Your task to perform on an android device: turn off picture-in-picture Image 0: 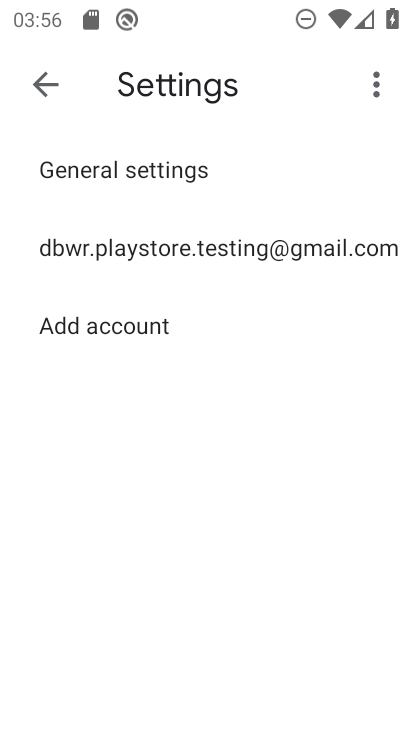
Step 0: press home button
Your task to perform on an android device: turn off picture-in-picture Image 1: 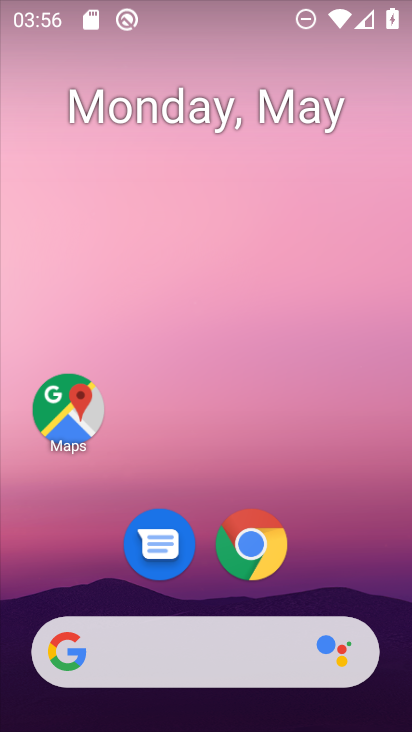
Step 1: drag from (387, 576) to (371, 197)
Your task to perform on an android device: turn off picture-in-picture Image 2: 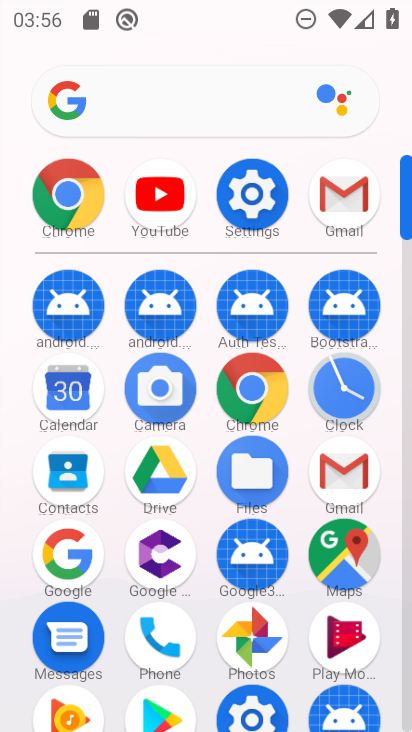
Step 2: click (262, 224)
Your task to perform on an android device: turn off picture-in-picture Image 3: 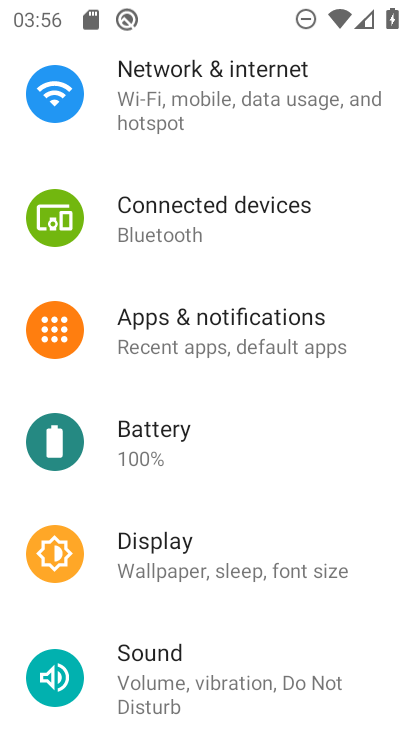
Step 3: drag from (364, 212) to (357, 312)
Your task to perform on an android device: turn off picture-in-picture Image 4: 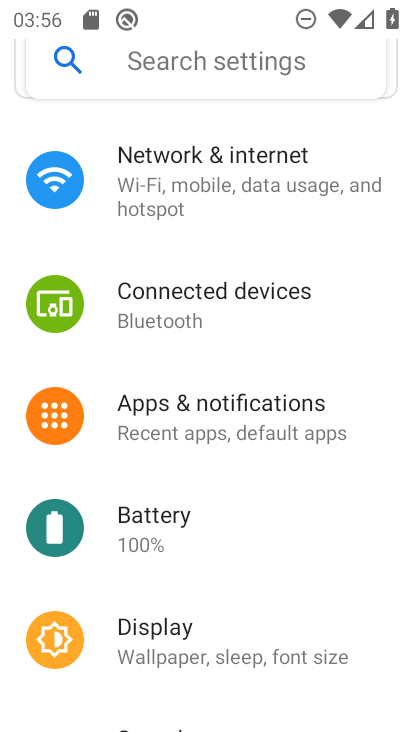
Step 4: click (343, 413)
Your task to perform on an android device: turn off picture-in-picture Image 5: 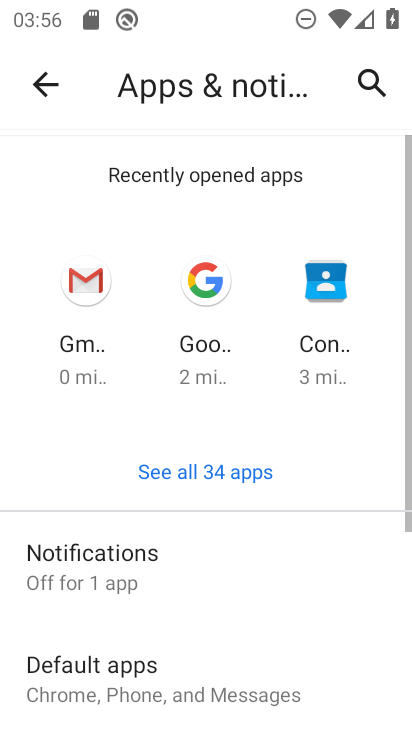
Step 5: drag from (338, 425) to (371, 222)
Your task to perform on an android device: turn off picture-in-picture Image 6: 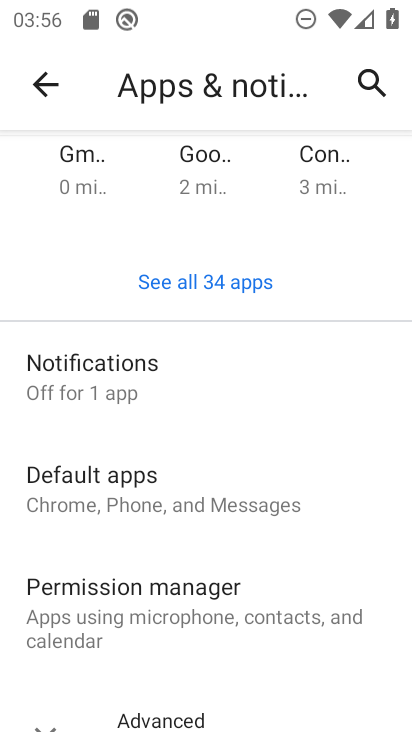
Step 6: drag from (329, 513) to (339, 368)
Your task to perform on an android device: turn off picture-in-picture Image 7: 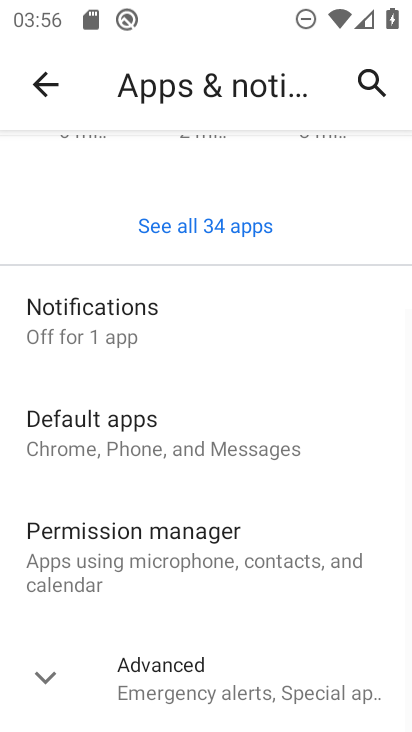
Step 7: click (289, 661)
Your task to perform on an android device: turn off picture-in-picture Image 8: 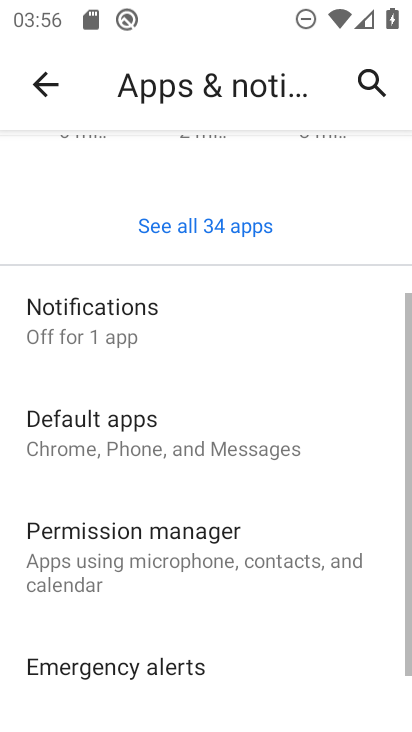
Step 8: drag from (322, 626) to (326, 481)
Your task to perform on an android device: turn off picture-in-picture Image 9: 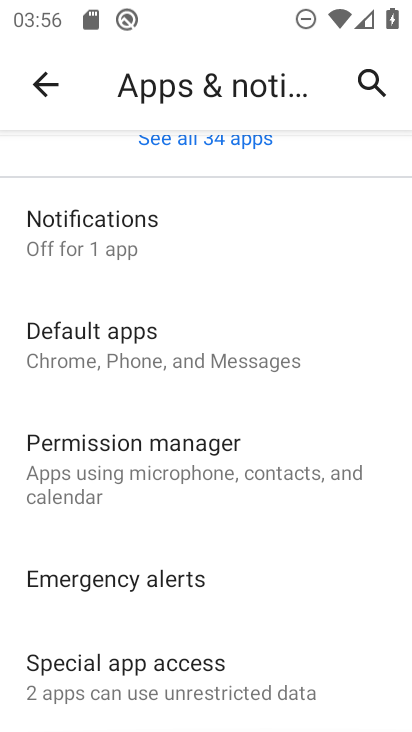
Step 9: click (259, 678)
Your task to perform on an android device: turn off picture-in-picture Image 10: 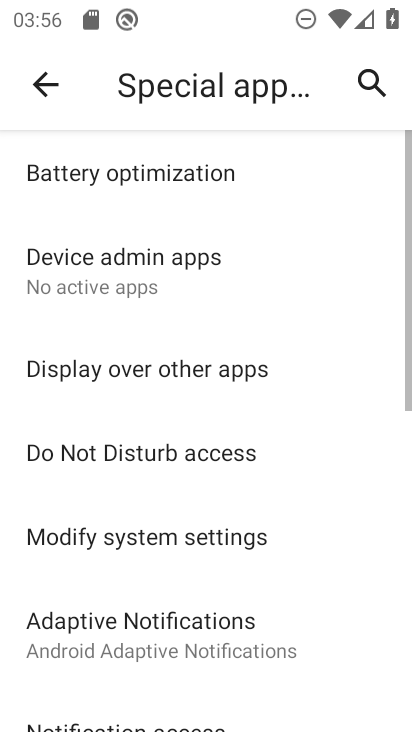
Step 10: drag from (328, 585) to (333, 499)
Your task to perform on an android device: turn off picture-in-picture Image 11: 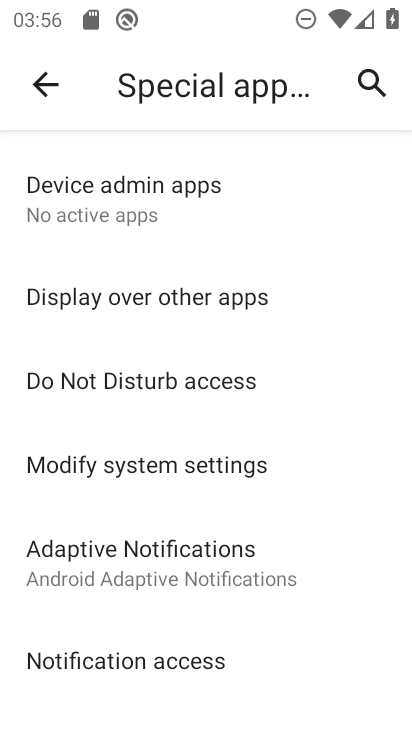
Step 11: drag from (345, 595) to (354, 489)
Your task to perform on an android device: turn off picture-in-picture Image 12: 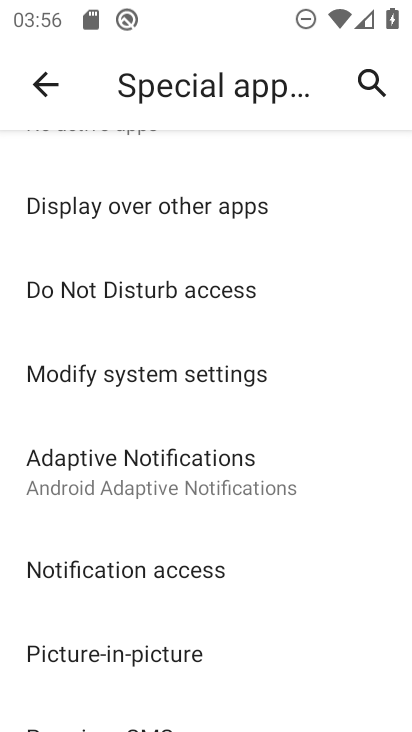
Step 12: drag from (346, 603) to (343, 479)
Your task to perform on an android device: turn off picture-in-picture Image 13: 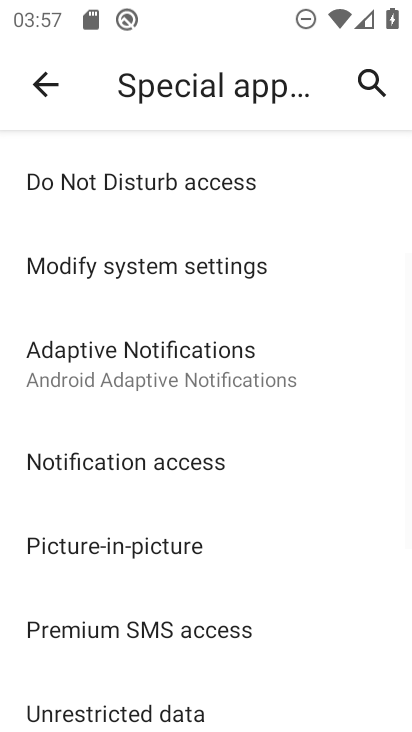
Step 13: click (256, 560)
Your task to perform on an android device: turn off picture-in-picture Image 14: 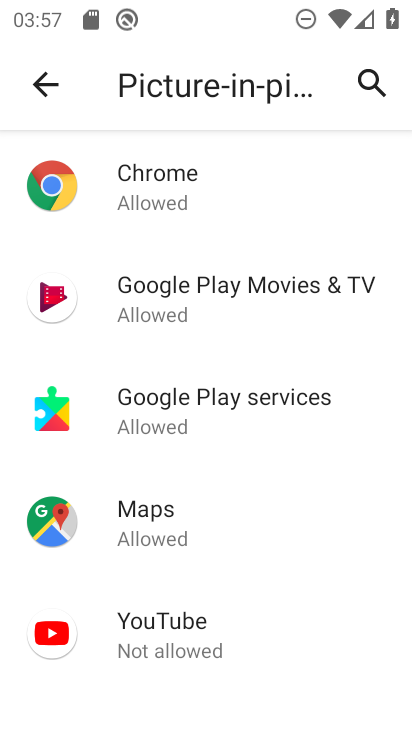
Step 14: click (239, 621)
Your task to perform on an android device: turn off picture-in-picture Image 15: 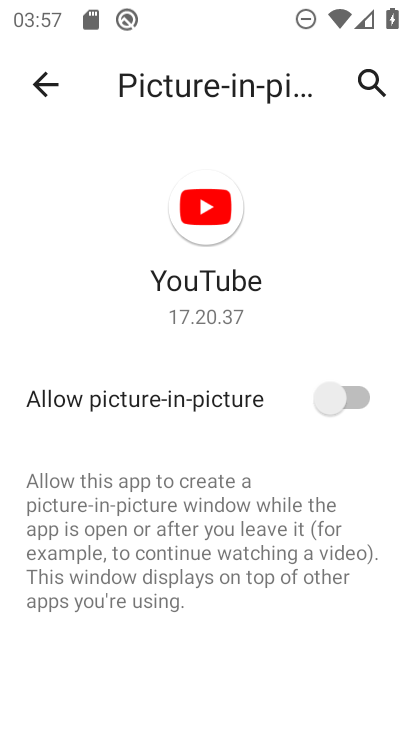
Step 15: task complete